Your task to perform on an android device: Open Google Maps Image 0: 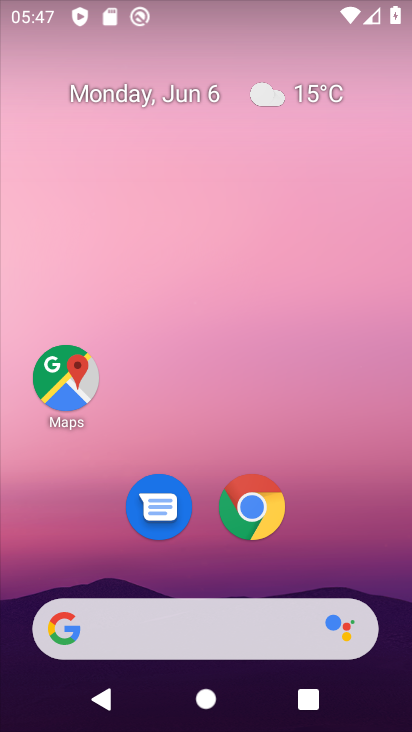
Step 0: click (68, 402)
Your task to perform on an android device: Open Google Maps Image 1: 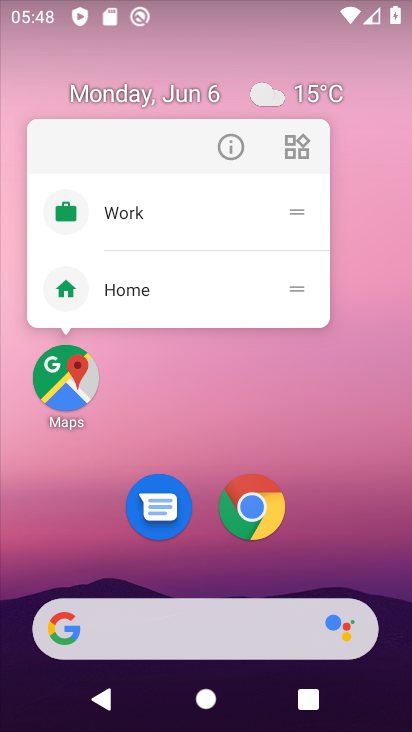
Step 1: click (68, 402)
Your task to perform on an android device: Open Google Maps Image 2: 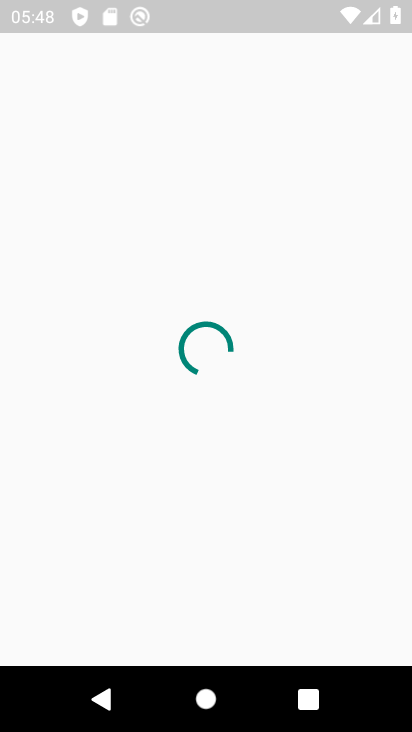
Step 2: task complete